Your task to perform on an android device: search for starred emails in the gmail app Image 0: 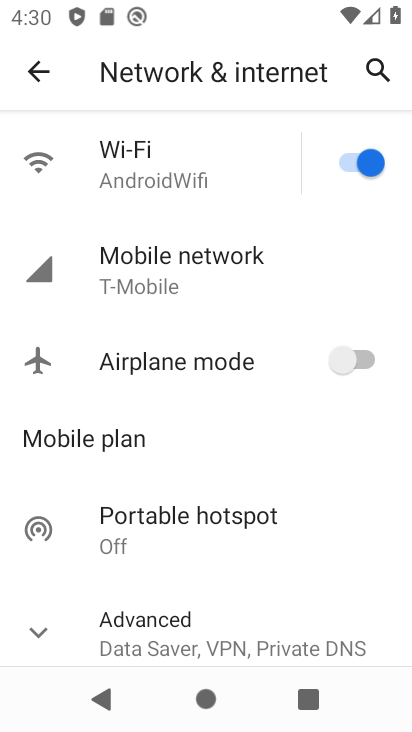
Step 0: press home button
Your task to perform on an android device: search for starred emails in the gmail app Image 1: 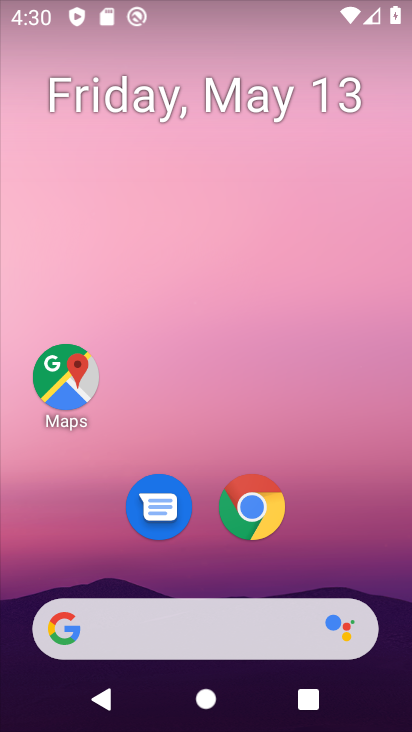
Step 1: drag from (349, 534) to (273, 77)
Your task to perform on an android device: search for starred emails in the gmail app Image 2: 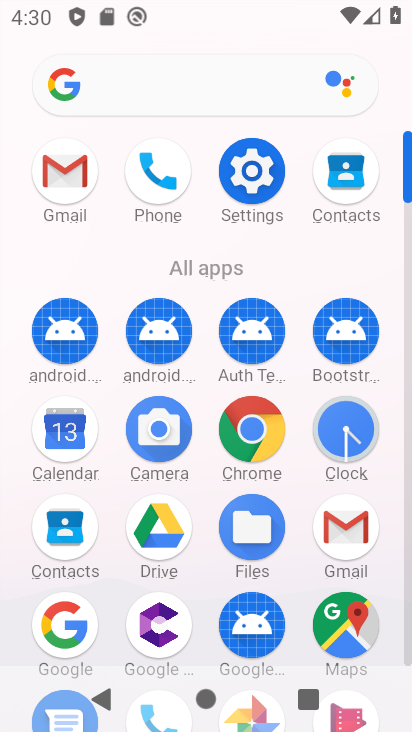
Step 2: click (347, 524)
Your task to perform on an android device: search for starred emails in the gmail app Image 3: 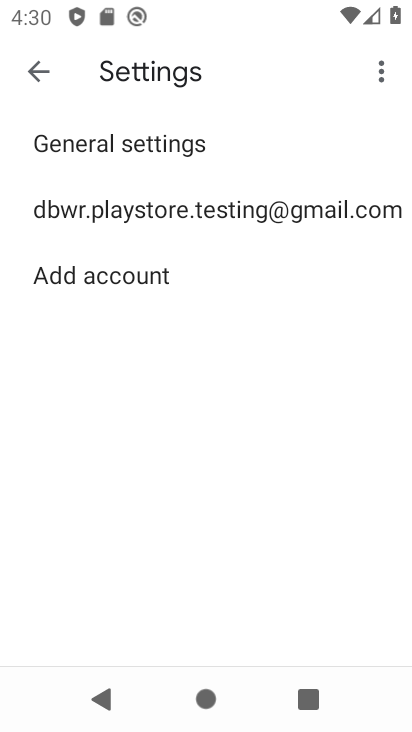
Step 3: click (29, 75)
Your task to perform on an android device: search for starred emails in the gmail app Image 4: 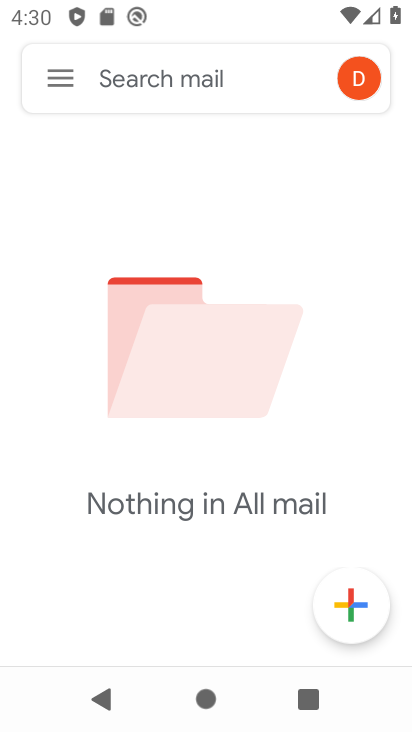
Step 4: click (154, 89)
Your task to perform on an android device: search for starred emails in the gmail app Image 5: 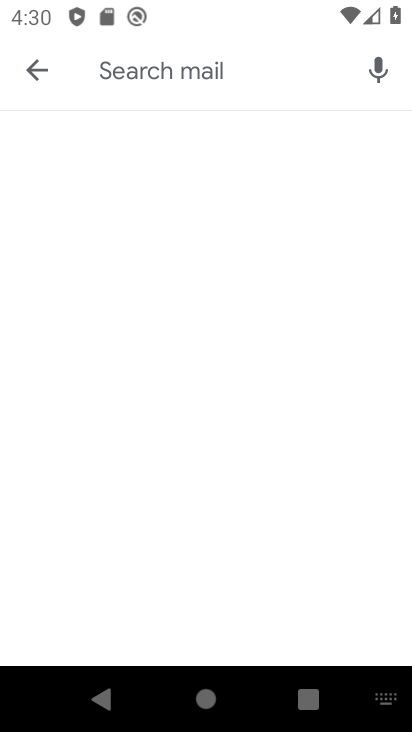
Step 5: type "starred"
Your task to perform on an android device: search for starred emails in the gmail app Image 6: 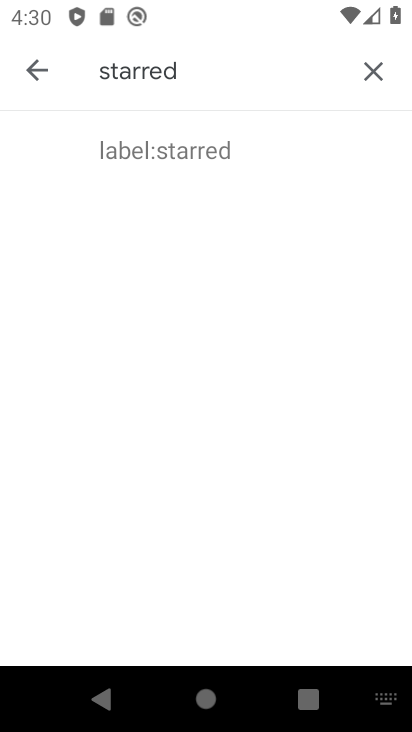
Step 6: click (136, 160)
Your task to perform on an android device: search for starred emails in the gmail app Image 7: 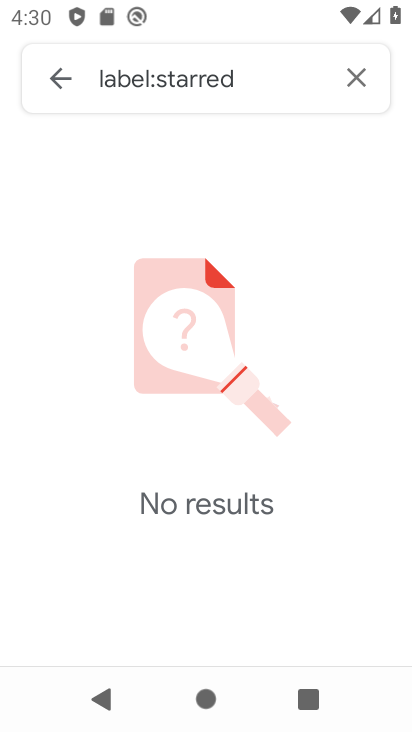
Step 7: task complete